Your task to perform on an android device: Open maps Image 0: 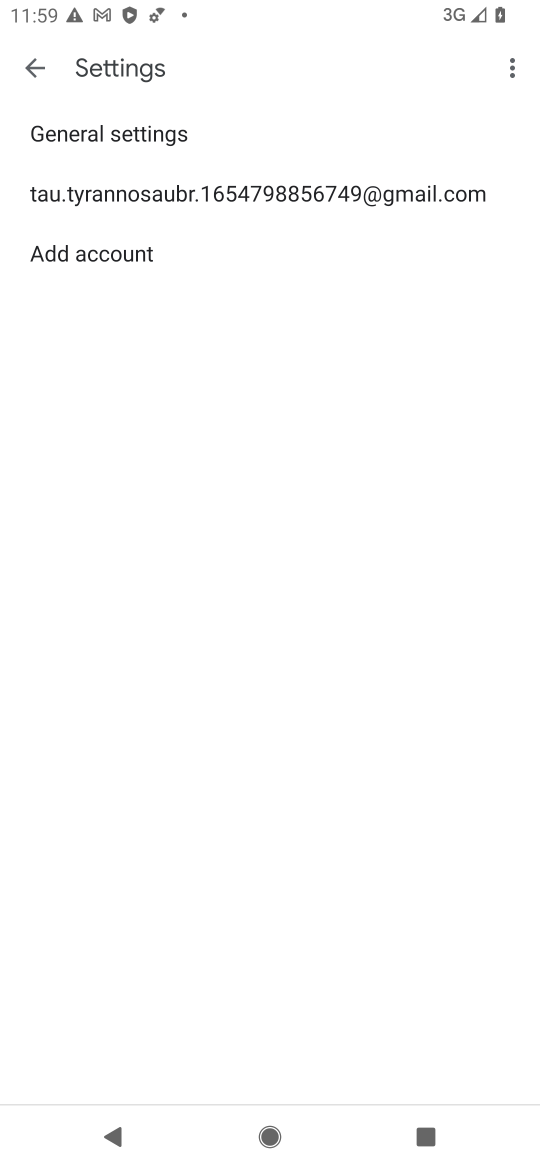
Step 0: press home button
Your task to perform on an android device: Open maps Image 1: 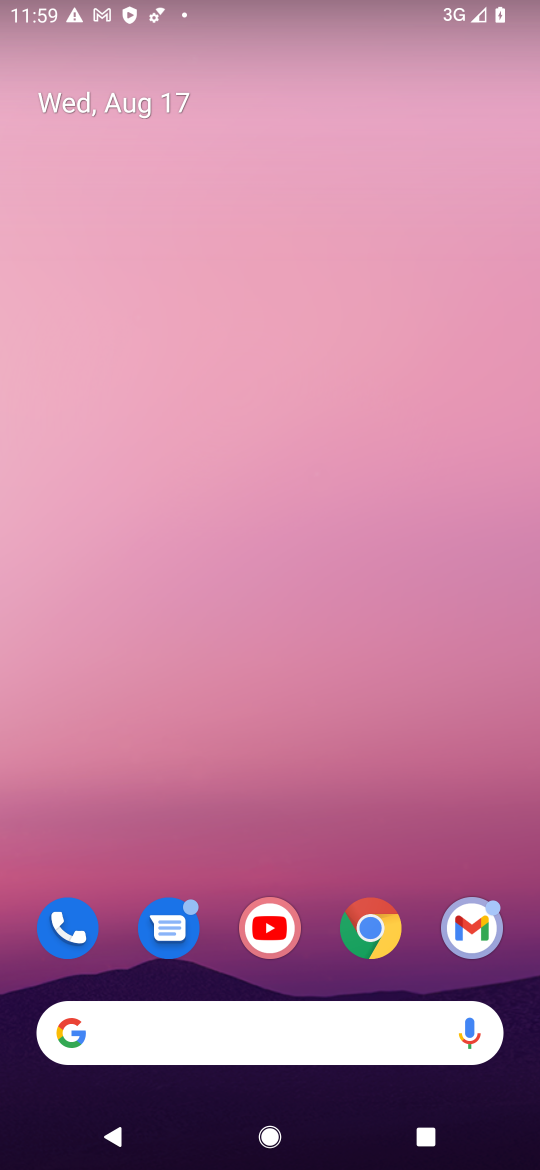
Step 1: drag from (384, 850) to (341, 236)
Your task to perform on an android device: Open maps Image 2: 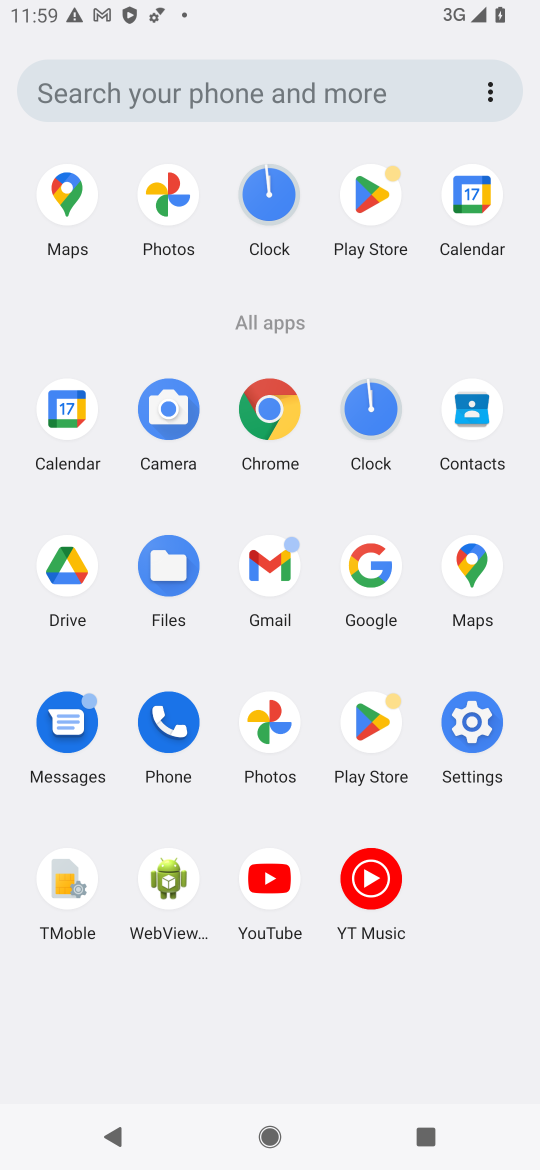
Step 2: click (469, 568)
Your task to perform on an android device: Open maps Image 3: 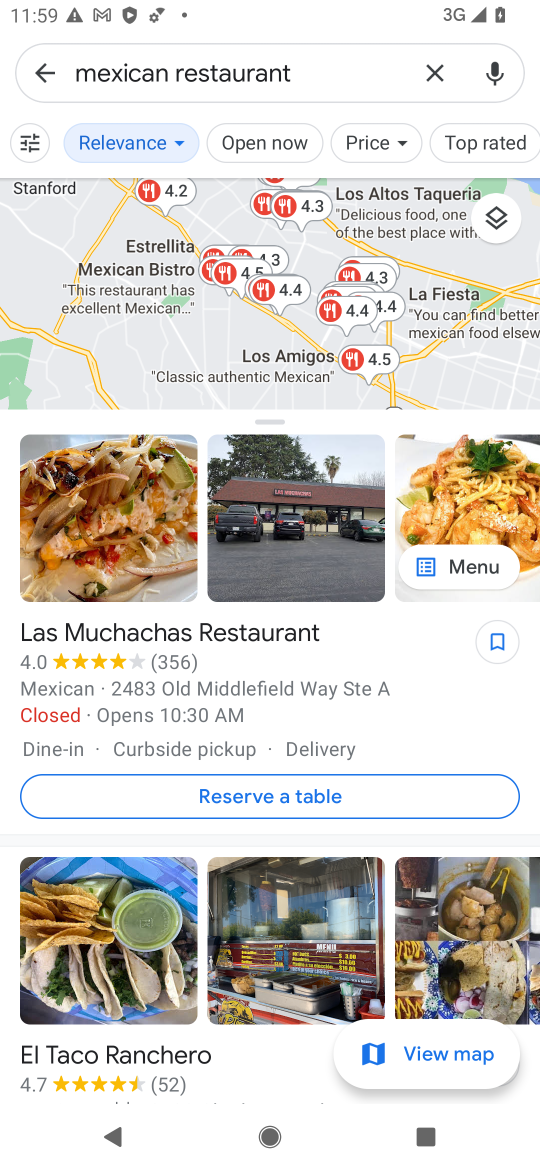
Step 3: task complete